Your task to perform on an android device: open a bookmark in the chrome app Image 0: 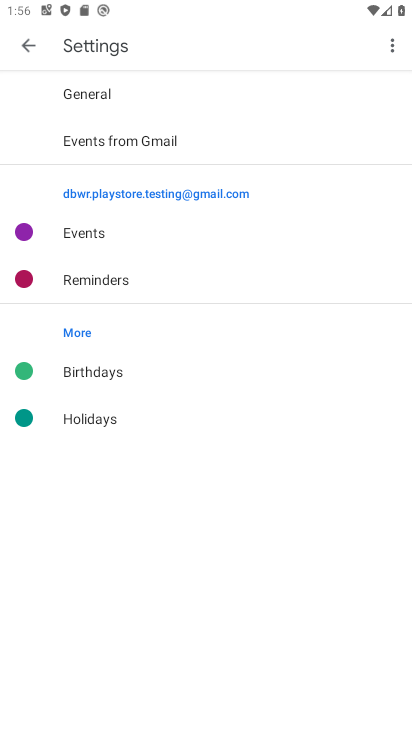
Step 0: press home button
Your task to perform on an android device: open a bookmark in the chrome app Image 1: 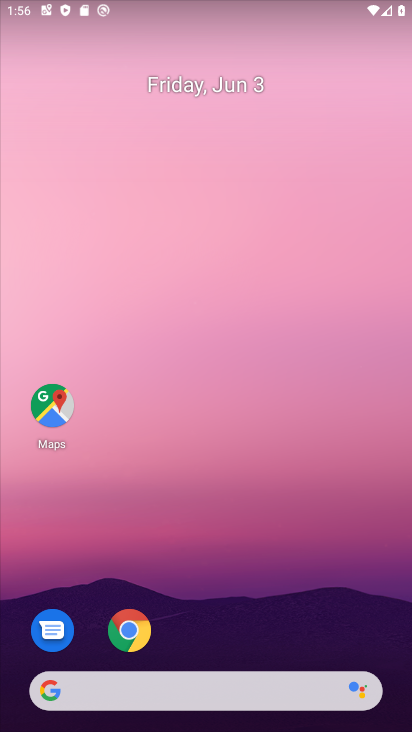
Step 1: click (127, 620)
Your task to perform on an android device: open a bookmark in the chrome app Image 2: 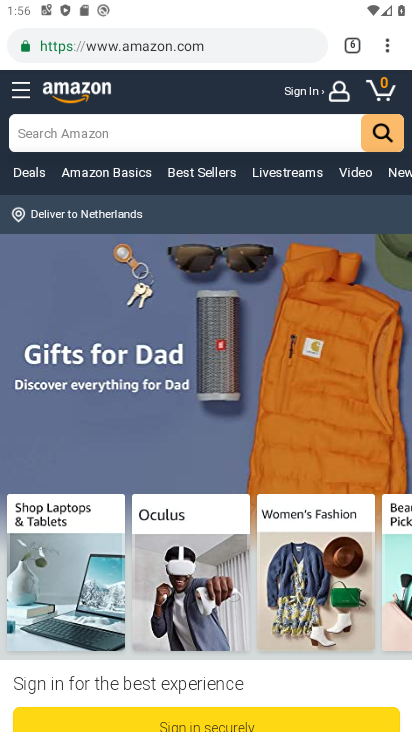
Step 2: click (387, 50)
Your task to perform on an android device: open a bookmark in the chrome app Image 3: 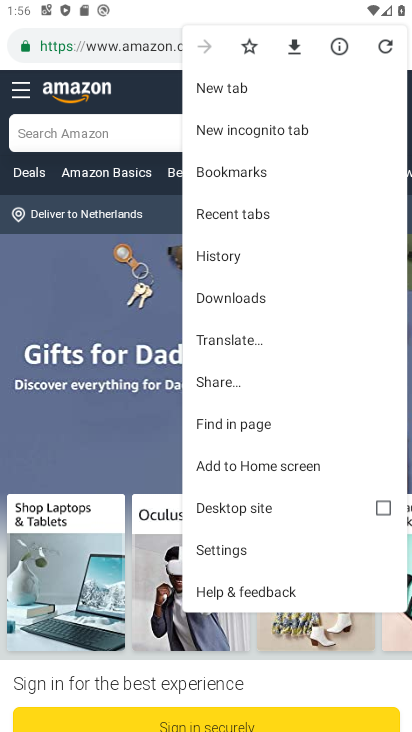
Step 3: click (241, 168)
Your task to perform on an android device: open a bookmark in the chrome app Image 4: 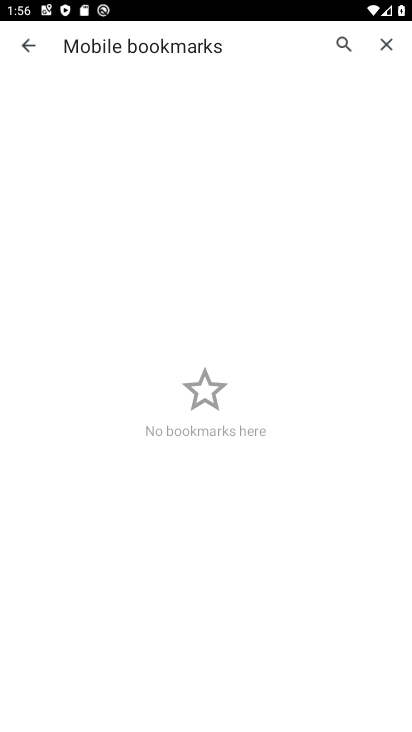
Step 4: task complete